Your task to perform on an android device: open wifi settings Image 0: 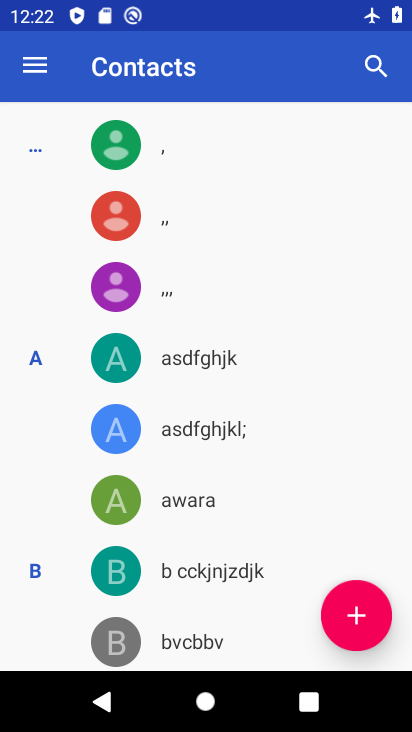
Step 0: press home button
Your task to perform on an android device: open wifi settings Image 1: 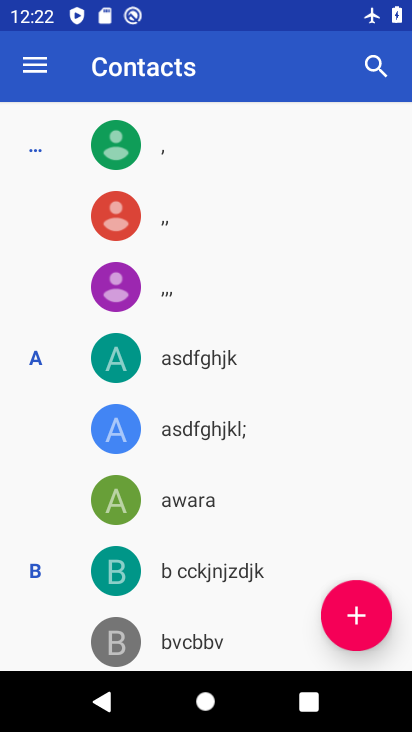
Step 1: press home button
Your task to perform on an android device: open wifi settings Image 2: 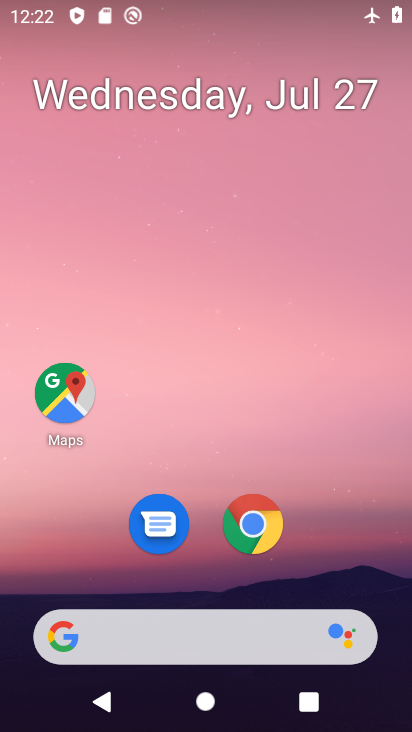
Step 2: drag from (317, 545) to (350, 23)
Your task to perform on an android device: open wifi settings Image 3: 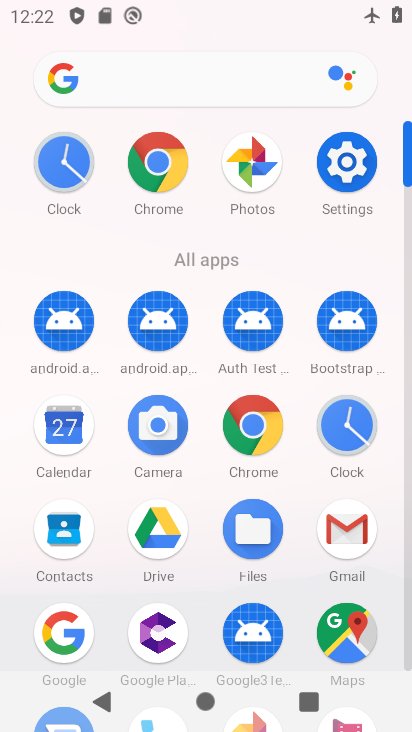
Step 3: click (342, 170)
Your task to perform on an android device: open wifi settings Image 4: 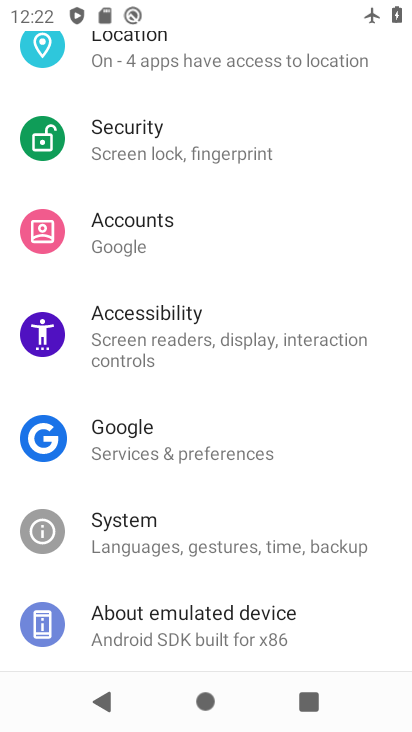
Step 4: drag from (222, 233) to (236, 502)
Your task to perform on an android device: open wifi settings Image 5: 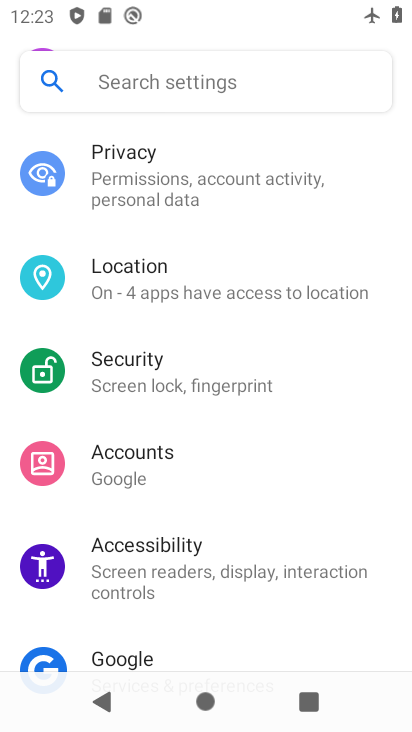
Step 5: drag from (225, 231) to (200, 514)
Your task to perform on an android device: open wifi settings Image 6: 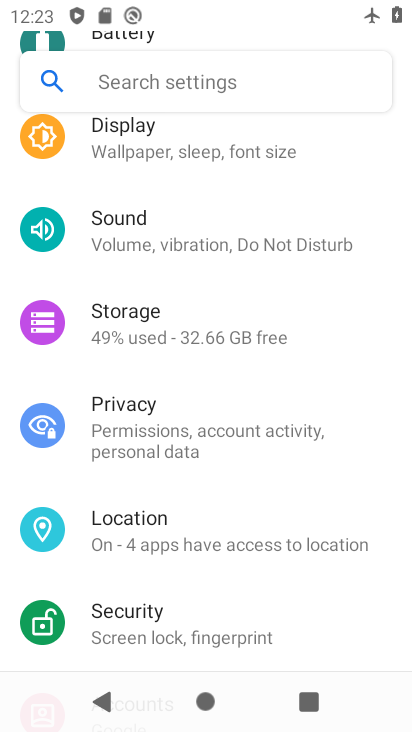
Step 6: drag from (223, 213) to (220, 493)
Your task to perform on an android device: open wifi settings Image 7: 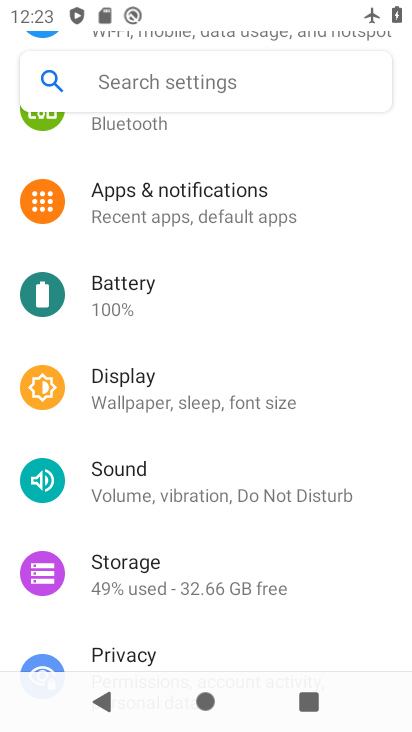
Step 7: drag from (226, 263) to (215, 536)
Your task to perform on an android device: open wifi settings Image 8: 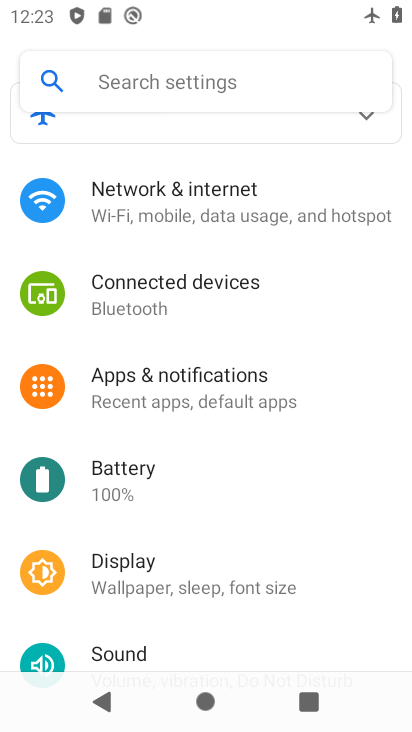
Step 8: click (221, 198)
Your task to perform on an android device: open wifi settings Image 9: 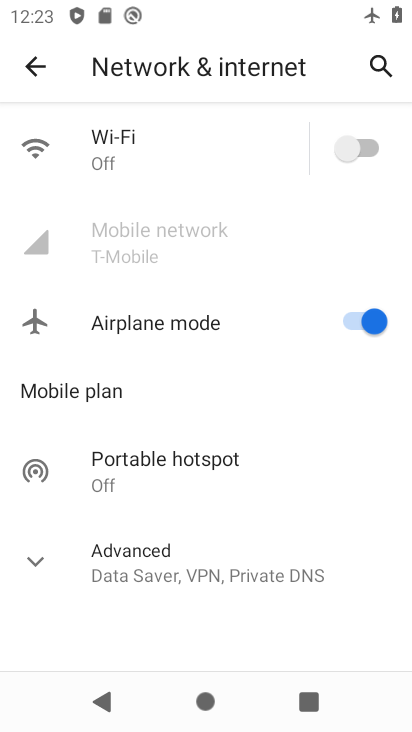
Step 9: click (128, 148)
Your task to perform on an android device: open wifi settings Image 10: 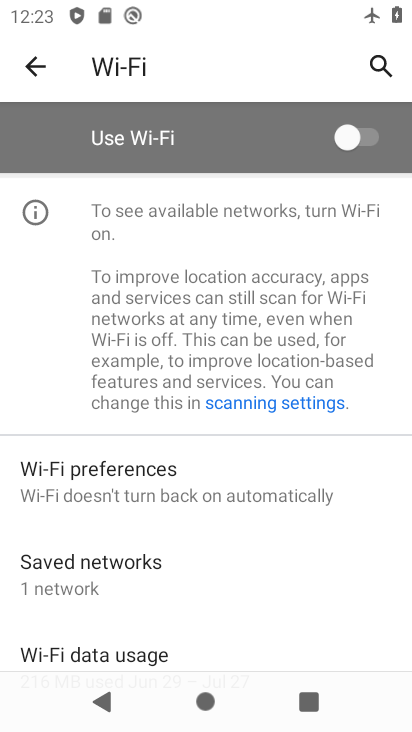
Step 10: task complete